Your task to perform on an android device: Open eBay Image 0: 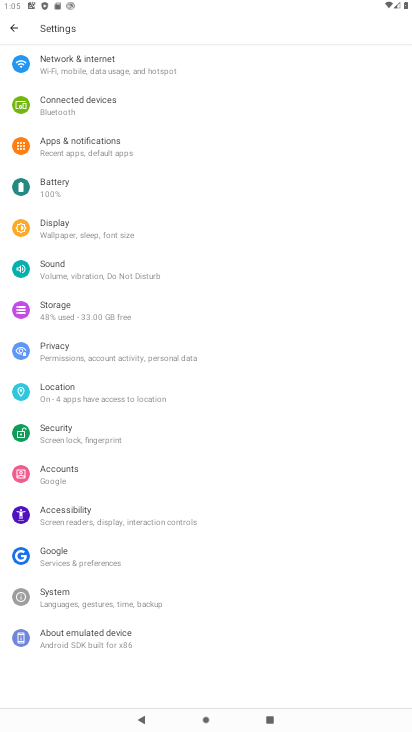
Step 0: press home button
Your task to perform on an android device: Open eBay Image 1: 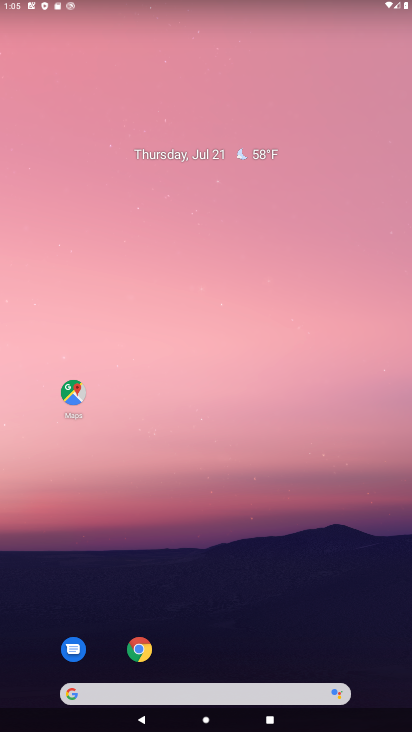
Step 1: drag from (234, 659) to (202, 183)
Your task to perform on an android device: Open eBay Image 2: 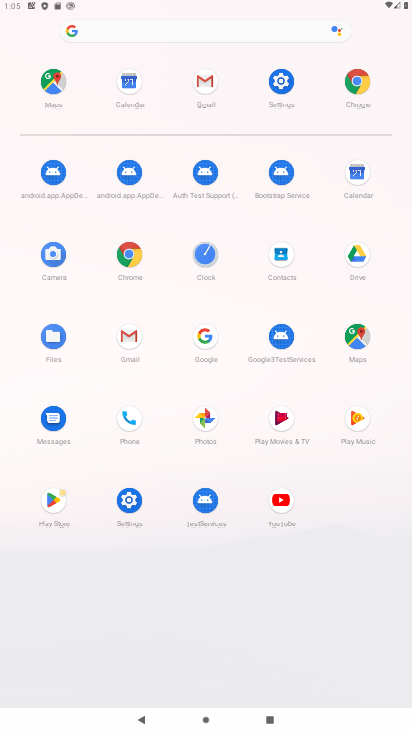
Step 2: click (364, 88)
Your task to perform on an android device: Open eBay Image 3: 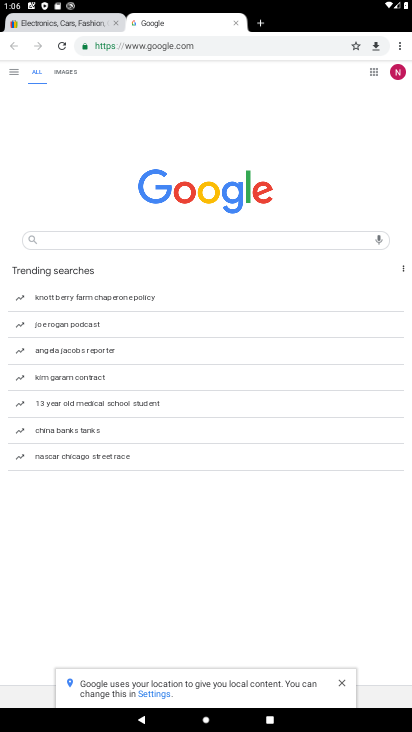
Step 3: click (203, 50)
Your task to perform on an android device: Open eBay Image 4: 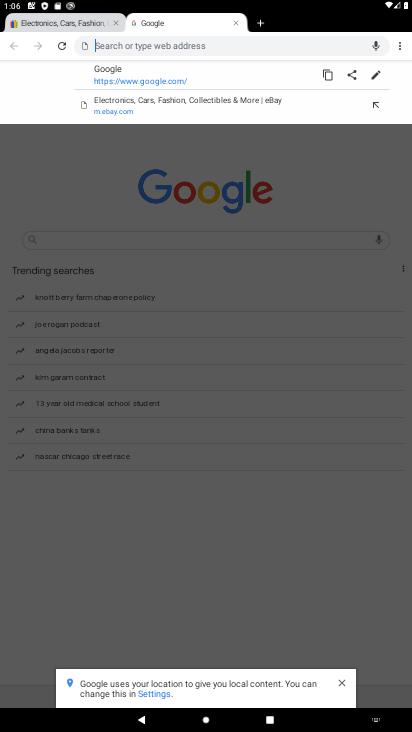
Step 4: type "ebay.co"
Your task to perform on an android device: Open eBay Image 5: 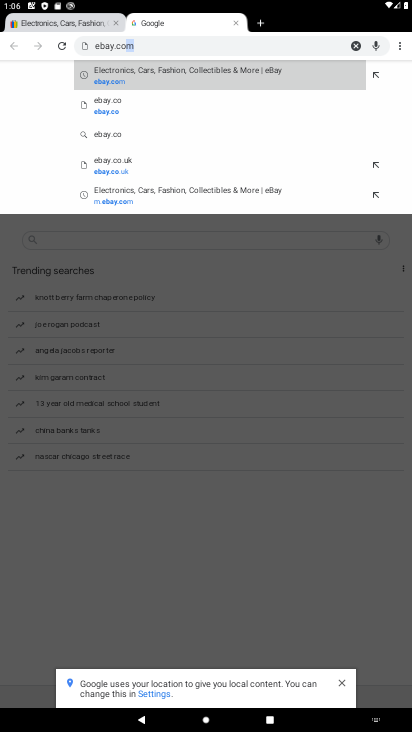
Step 5: click (196, 76)
Your task to perform on an android device: Open eBay Image 6: 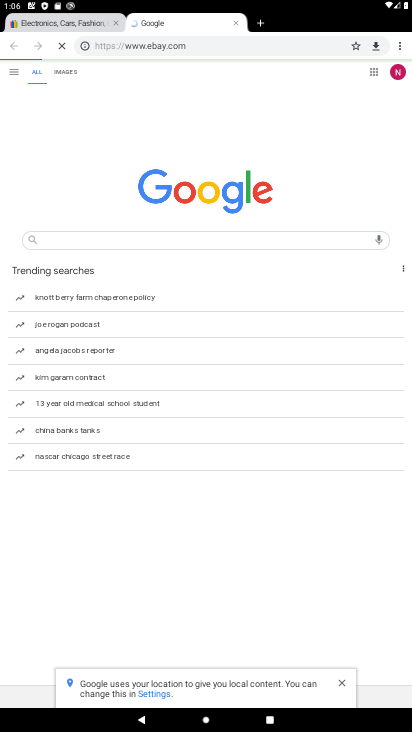
Step 6: task complete